Your task to perform on an android device: Go to privacy settings Image 0: 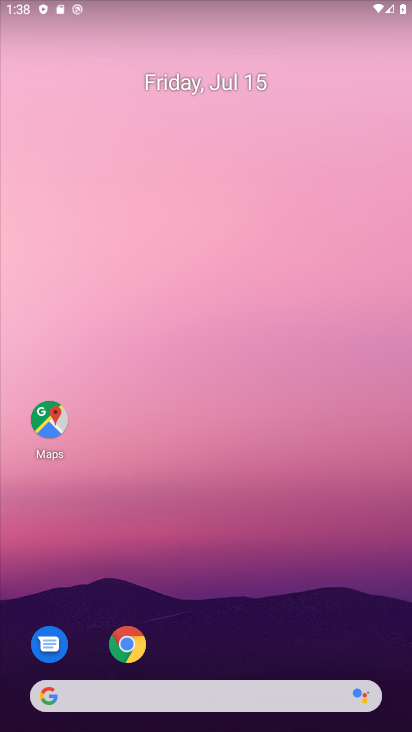
Step 0: drag from (335, 621) to (207, 34)
Your task to perform on an android device: Go to privacy settings Image 1: 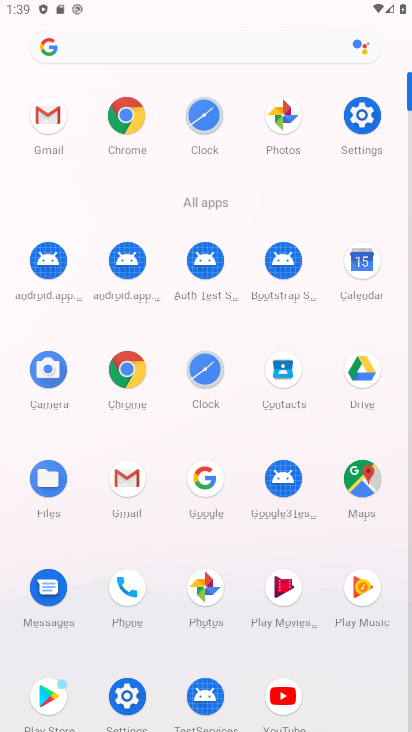
Step 1: click (137, 700)
Your task to perform on an android device: Go to privacy settings Image 2: 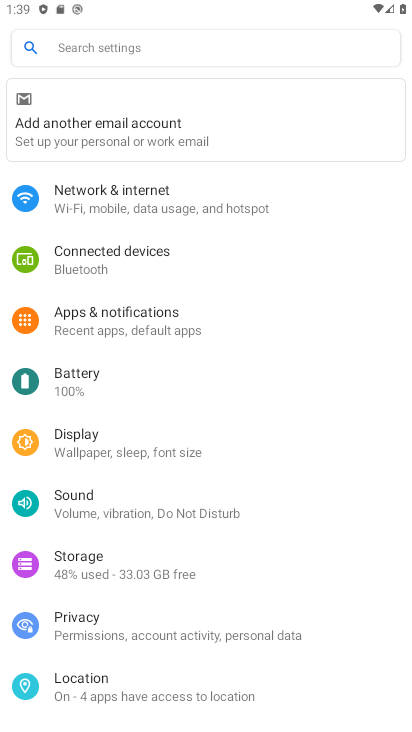
Step 2: click (97, 618)
Your task to perform on an android device: Go to privacy settings Image 3: 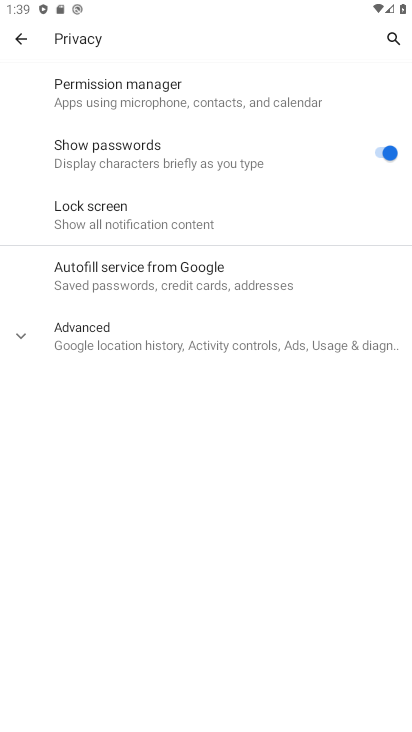
Step 3: task complete